Your task to perform on an android device: Open internet settings Image 0: 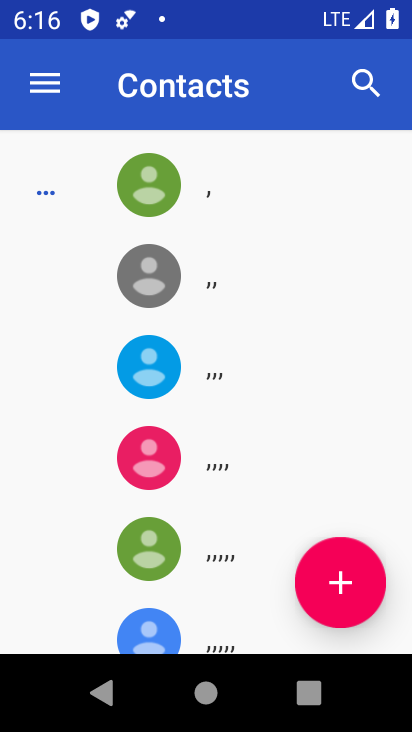
Step 0: press home button
Your task to perform on an android device: Open internet settings Image 1: 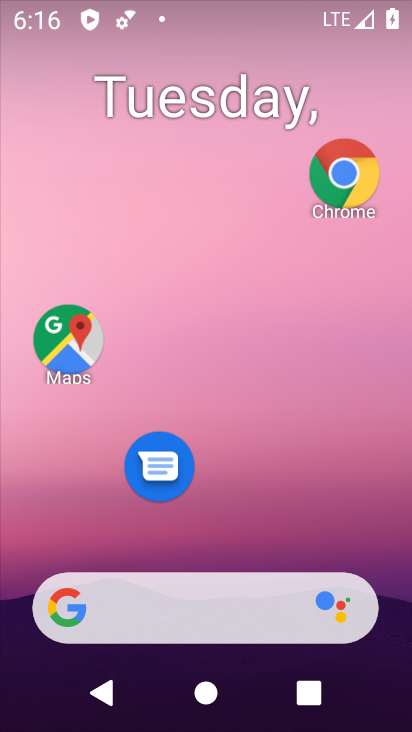
Step 1: drag from (283, 499) to (226, 46)
Your task to perform on an android device: Open internet settings Image 2: 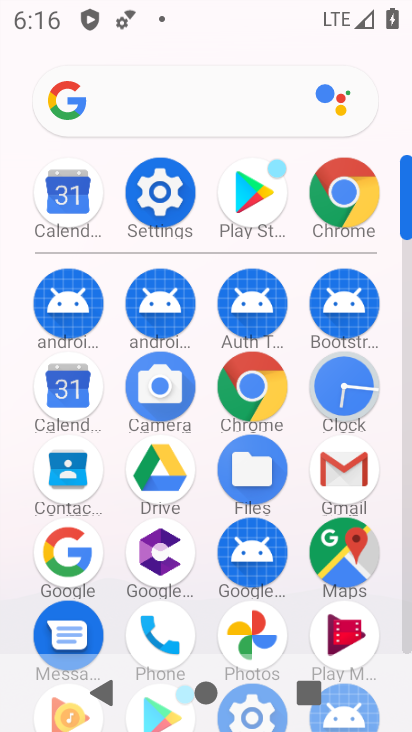
Step 2: click (168, 191)
Your task to perform on an android device: Open internet settings Image 3: 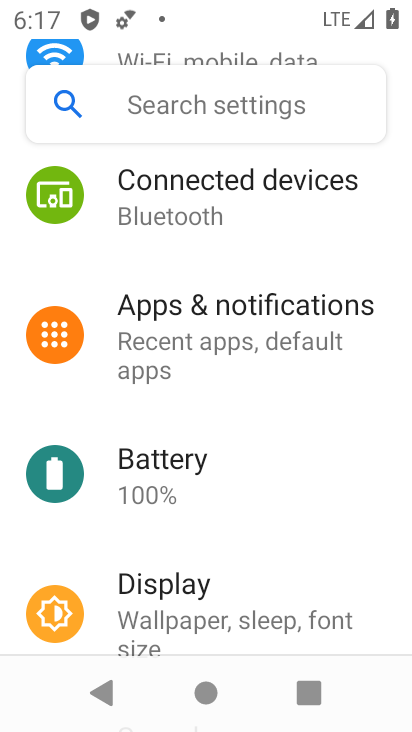
Step 3: drag from (168, 191) to (173, 722)
Your task to perform on an android device: Open internet settings Image 4: 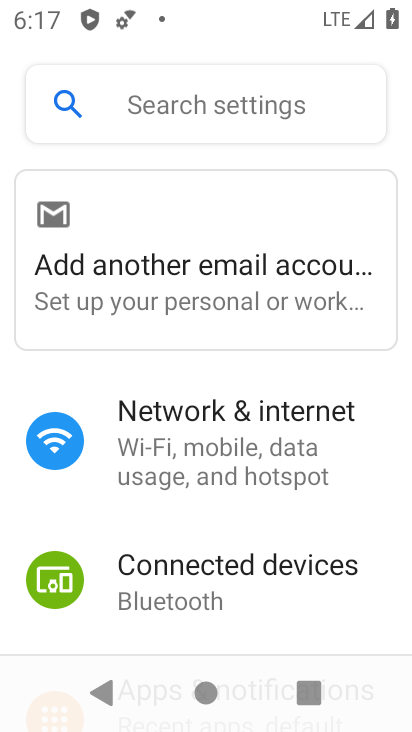
Step 4: click (204, 447)
Your task to perform on an android device: Open internet settings Image 5: 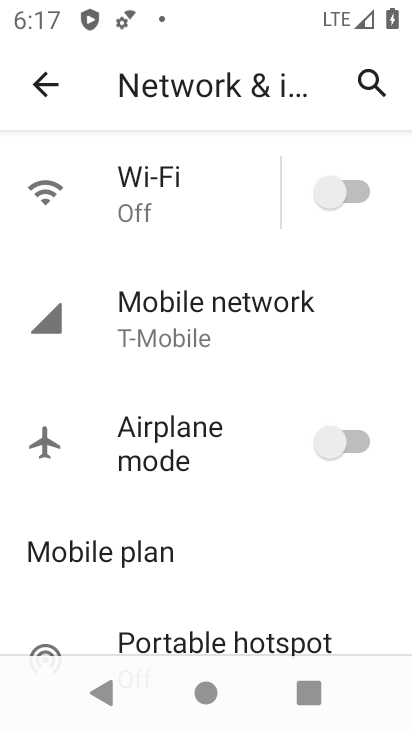
Step 5: task complete